Your task to perform on an android device: Open Youtube and go to "Your channel" Image 0: 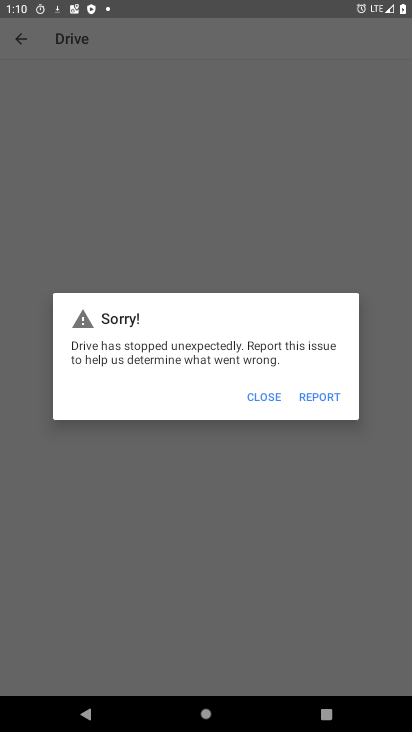
Step 0: press home button
Your task to perform on an android device: Open Youtube and go to "Your channel" Image 1: 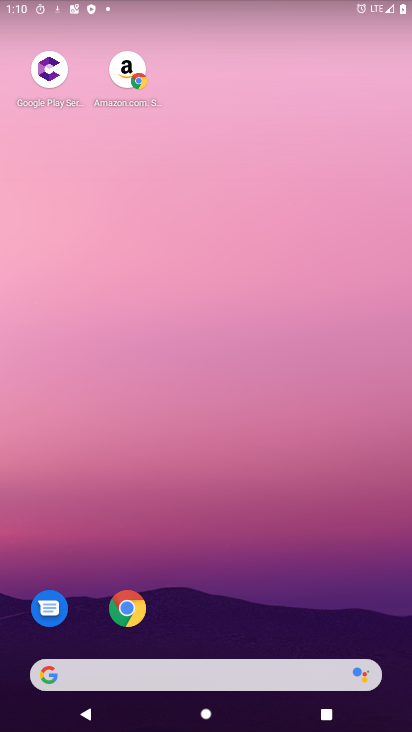
Step 1: drag from (285, 677) to (210, 281)
Your task to perform on an android device: Open Youtube and go to "Your channel" Image 2: 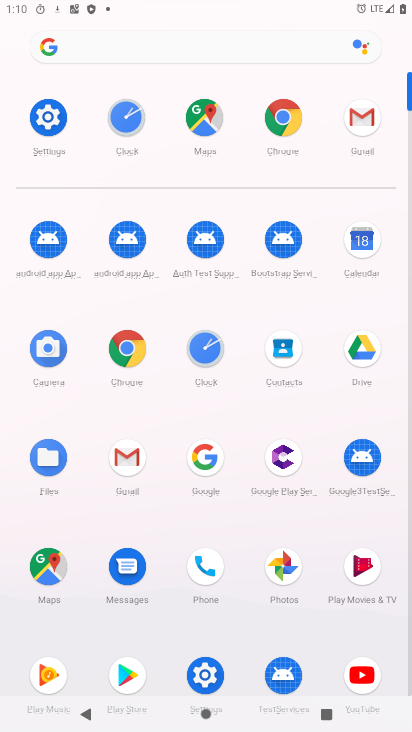
Step 2: click (369, 681)
Your task to perform on an android device: Open Youtube and go to "Your channel" Image 3: 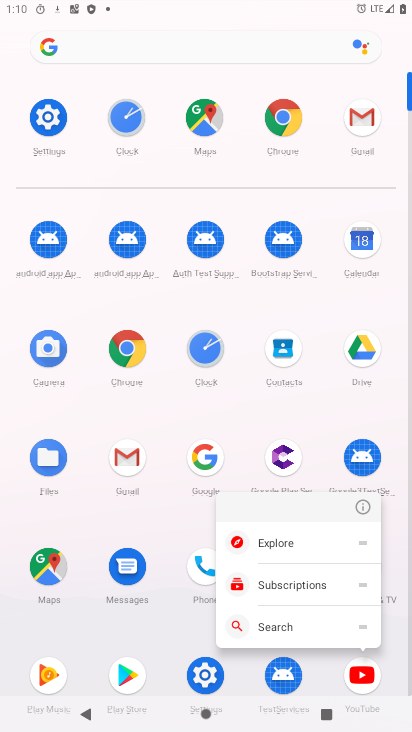
Step 3: click (360, 677)
Your task to perform on an android device: Open Youtube and go to "Your channel" Image 4: 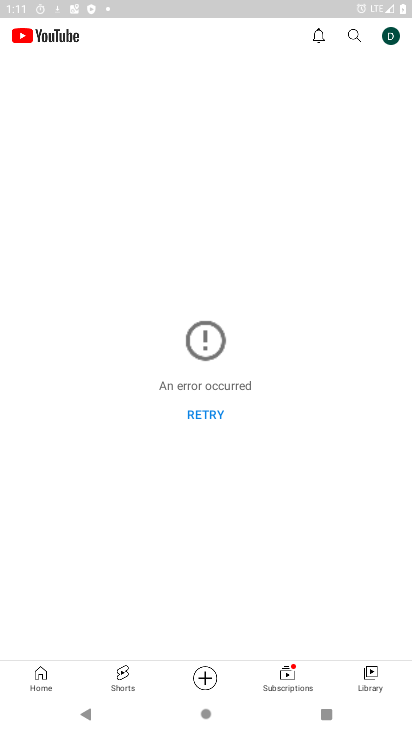
Step 4: click (390, 35)
Your task to perform on an android device: Open Youtube and go to "Your channel" Image 5: 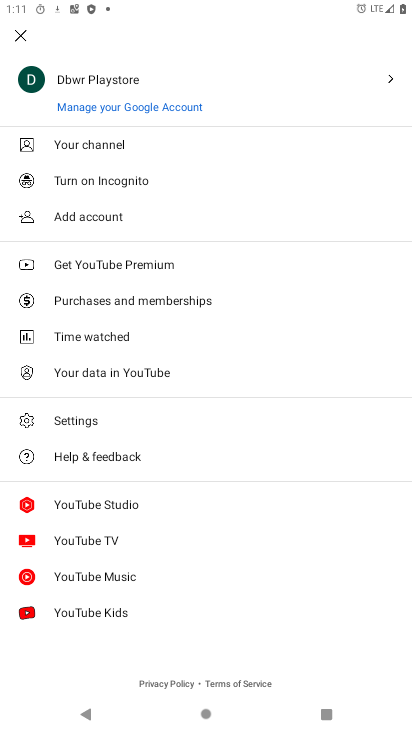
Step 5: click (114, 144)
Your task to perform on an android device: Open Youtube and go to "Your channel" Image 6: 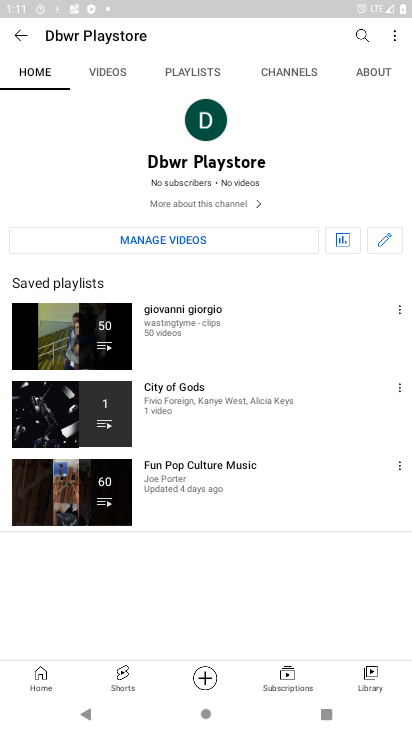
Step 6: task complete